Your task to perform on an android device: Search for Italian restaurants on Maps Image 0: 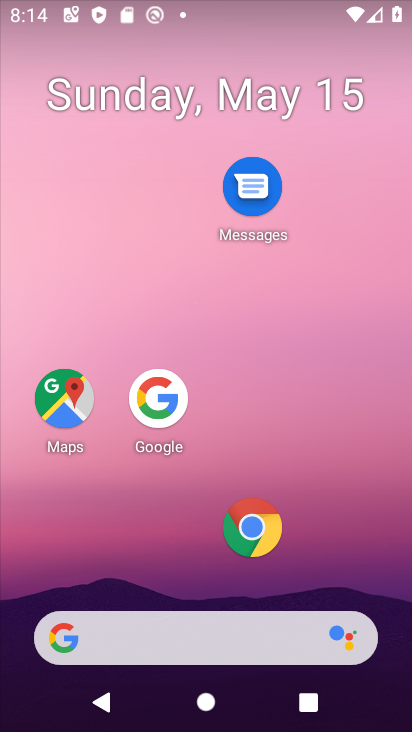
Step 0: drag from (127, 646) to (306, 60)
Your task to perform on an android device: Search for Italian restaurants on Maps Image 1: 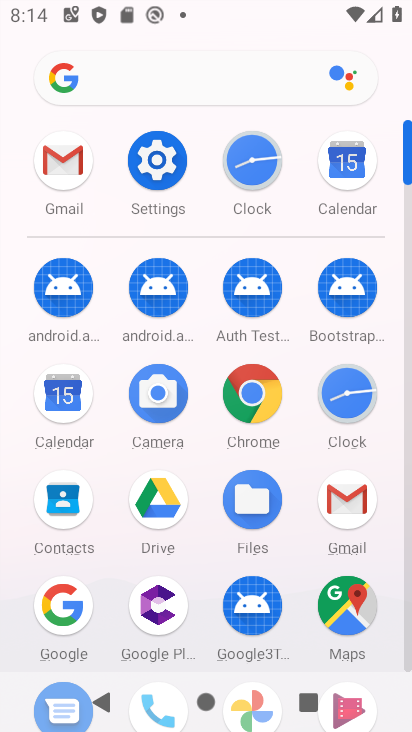
Step 1: click (345, 619)
Your task to perform on an android device: Search for Italian restaurants on Maps Image 2: 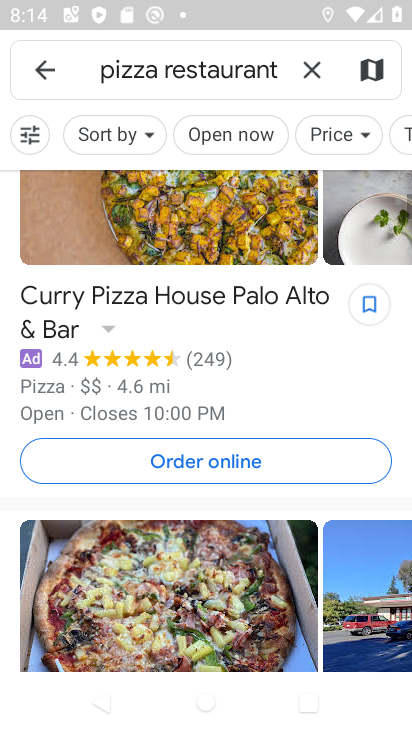
Step 2: click (42, 72)
Your task to perform on an android device: Search for Italian restaurants on Maps Image 3: 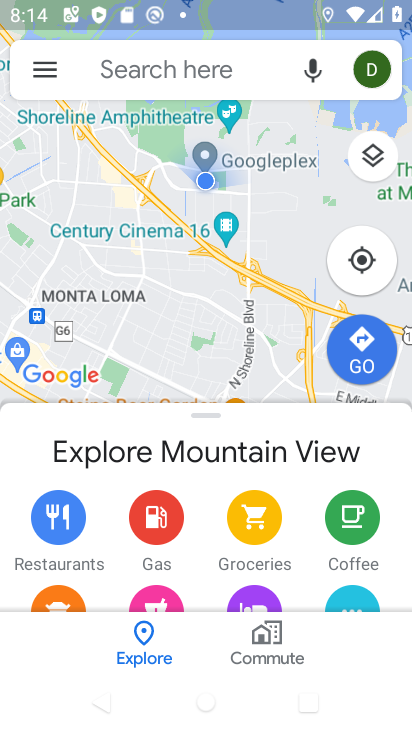
Step 3: click (173, 68)
Your task to perform on an android device: Search for Italian restaurants on Maps Image 4: 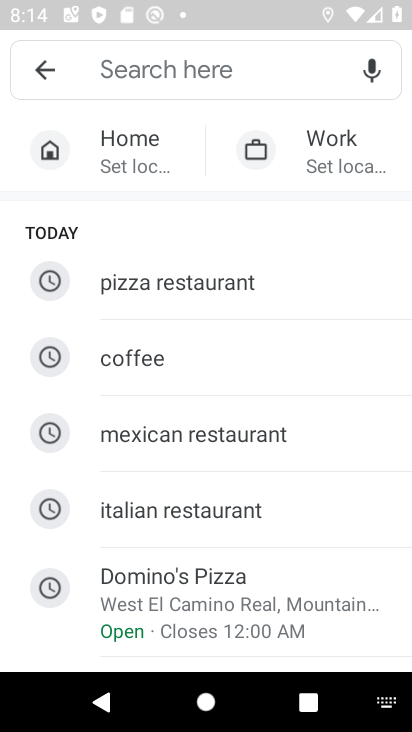
Step 4: click (199, 513)
Your task to perform on an android device: Search for Italian restaurants on Maps Image 5: 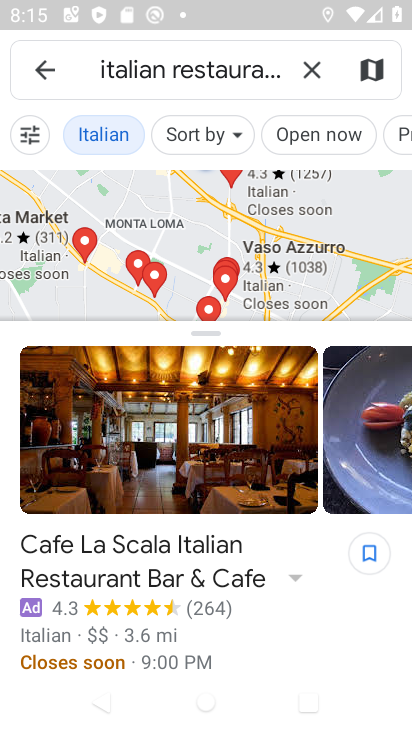
Step 5: task complete